Your task to perform on an android device: toggle airplane mode Image 0: 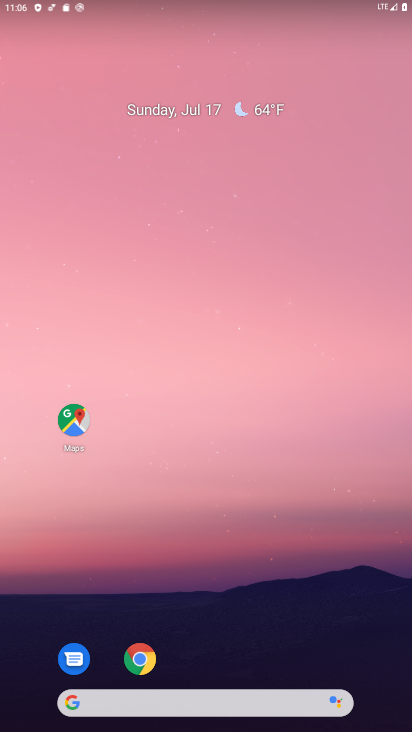
Step 0: drag from (352, 652) to (354, 144)
Your task to perform on an android device: toggle airplane mode Image 1: 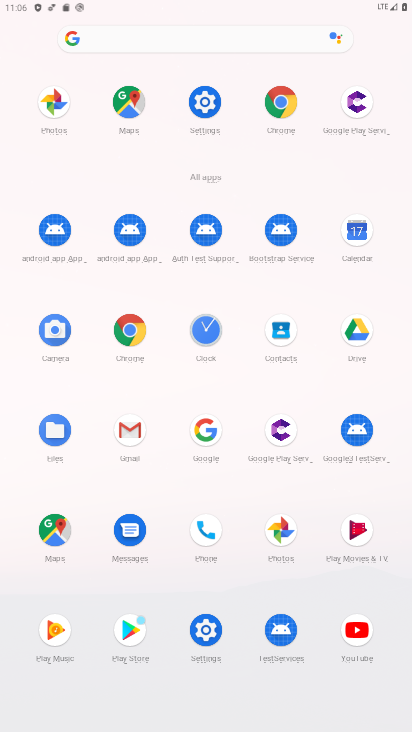
Step 1: click (209, 100)
Your task to perform on an android device: toggle airplane mode Image 2: 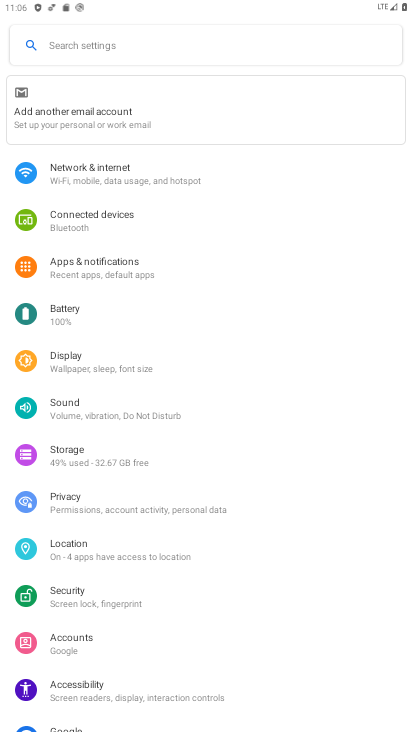
Step 2: drag from (205, 499) to (219, 366)
Your task to perform on an android device: toggle airplane mode Image 3: 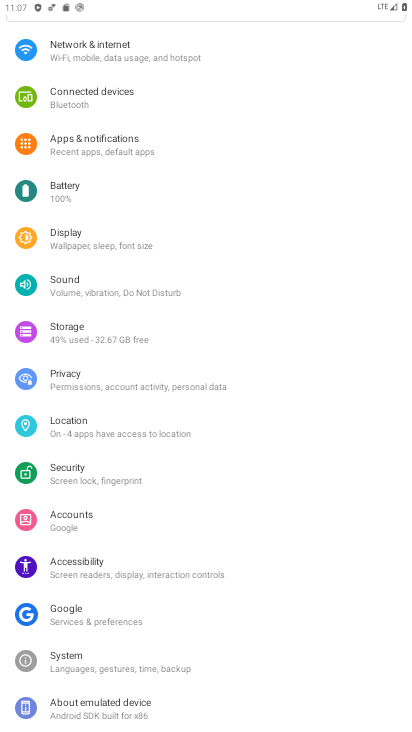
Step 3: drag from (302, 533) to (304, 328)
Your task to perform on an android device: toggle airplane mode Image 4: 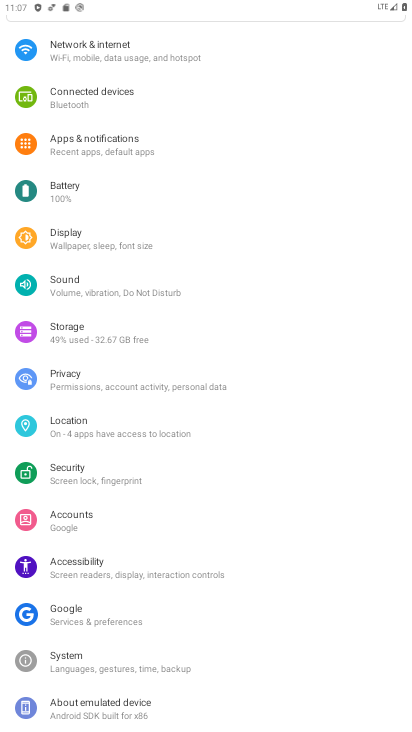
Step 4: drag from (313, 541) to (311, 432)
Your task to perform on an android device: toggle airplane mode Image 5: 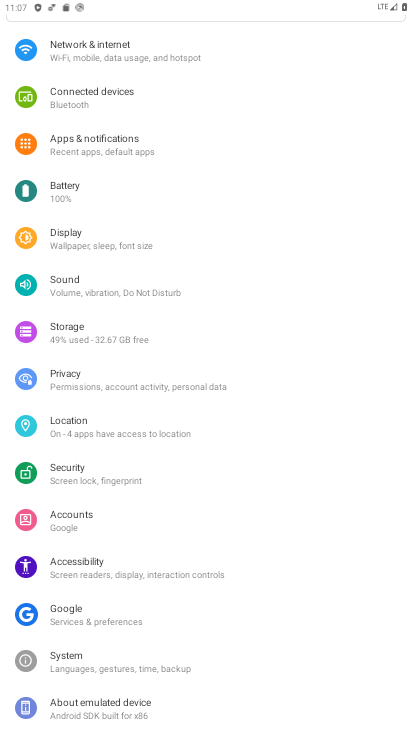
Step 5: drag from (330, 281) to (328, 451)
Your task to perform on an android device: toggle airplane mode Image 6: 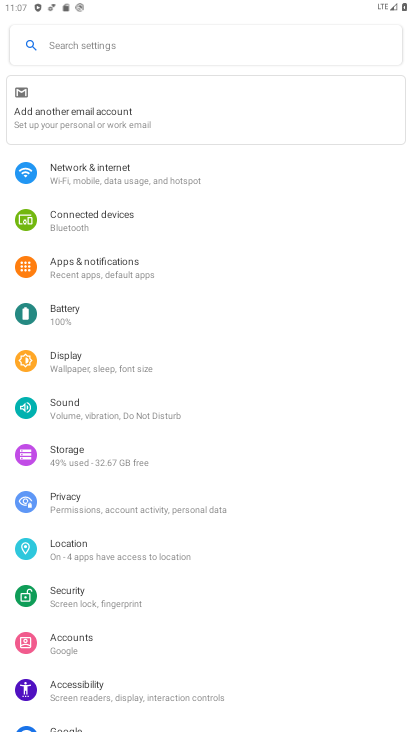
Step 6: drag from (319, 248) to (321, 360)
Your task to perform on an android device: toggle airplane mode Image 7: 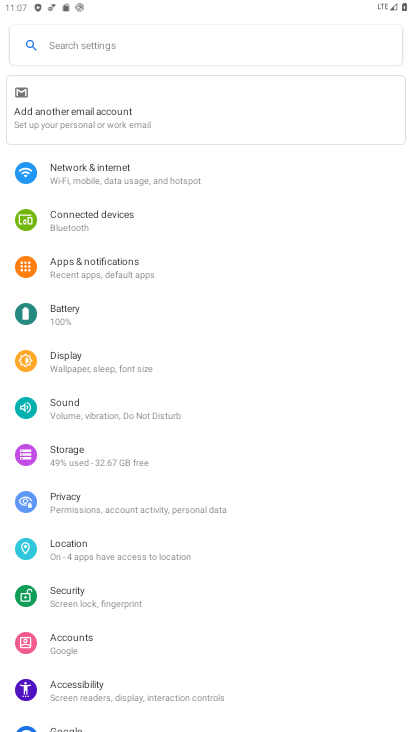
Step 7: click (200, 173)
Your task to perform on an android device: toggle airplane mode Image 8: 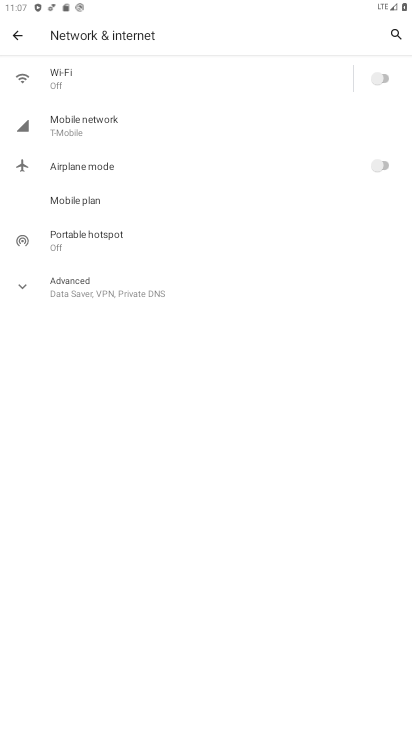
Step 8: click (373, 169)
Your task to perform on an android device: toggle airplane mode Image 9: 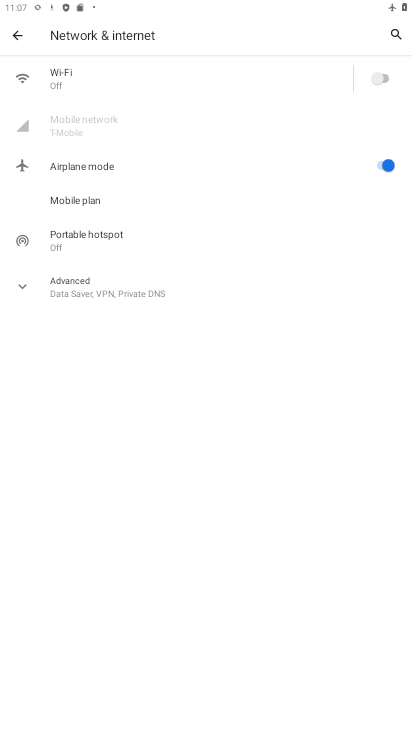
Step 9: task complete